Your task to perform on an android device: Go to wifi settings Image 0: 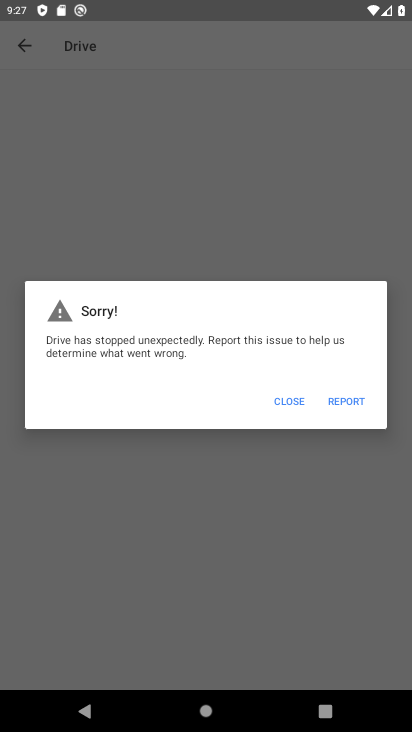
Step 0: press home button
Your task to perform on an android device: Go to wifi settings Image 1: 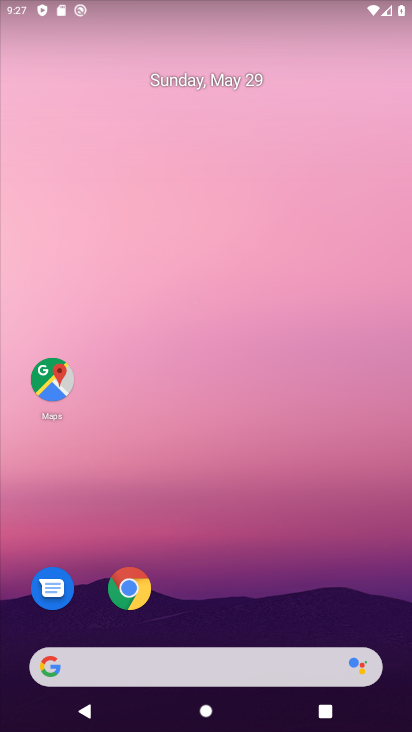
Step 1: drag from (194, 7) to (211, 474)
Your task to perform on an android device: Go to wifi settings Image 2: 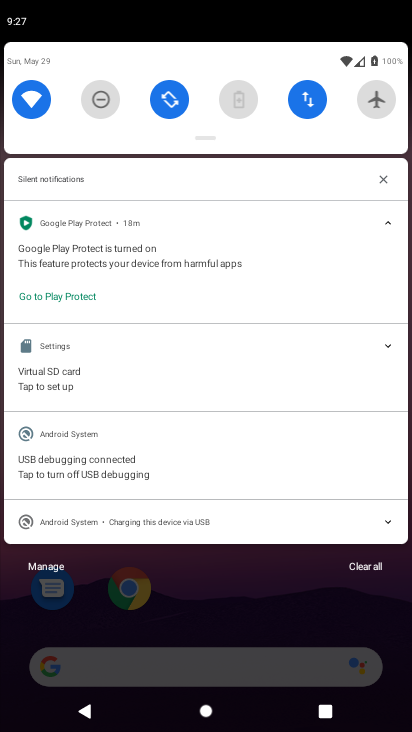
Step 2: click (40, 109)
Your task to perform on an android device: Go to wifi settings Image 3: 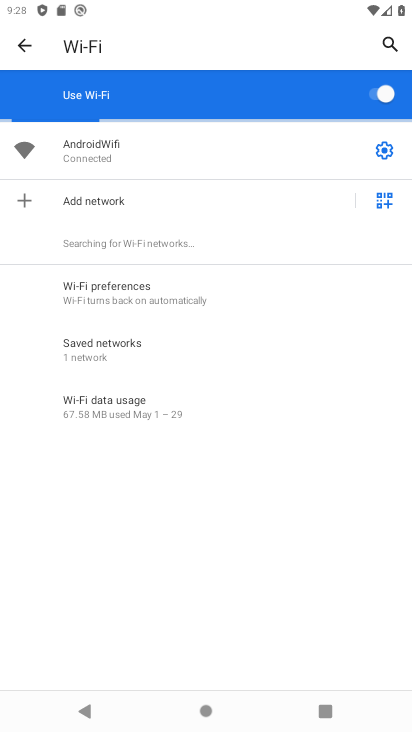
Step 3: click (372, 153)
Your task to perform on an android device: Go to wifi settings Image 4: 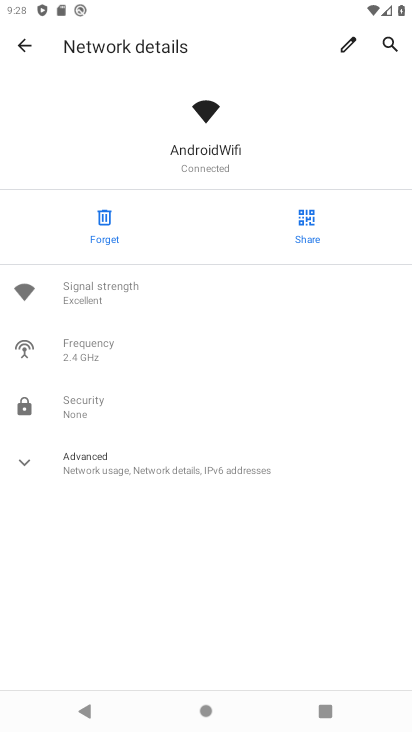
Step 4: task complete